Your task to perform on an android device: delete browsing data in the chrome app Image 0: 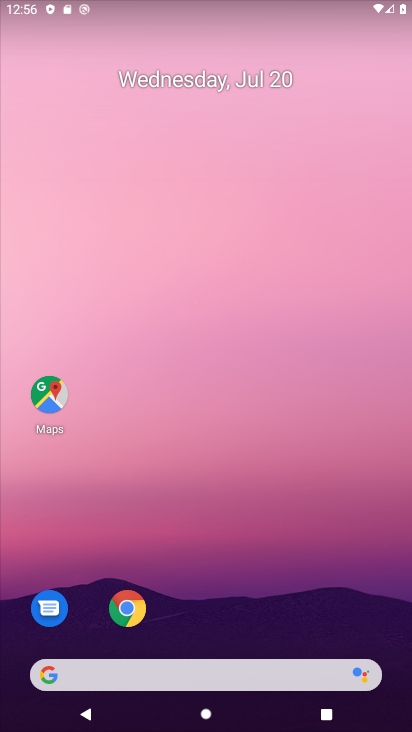
Step 0: drag from (299, 279) to (301, 29)
Your task to perform on an android device: delete browsing data in the chrome app Image 1: 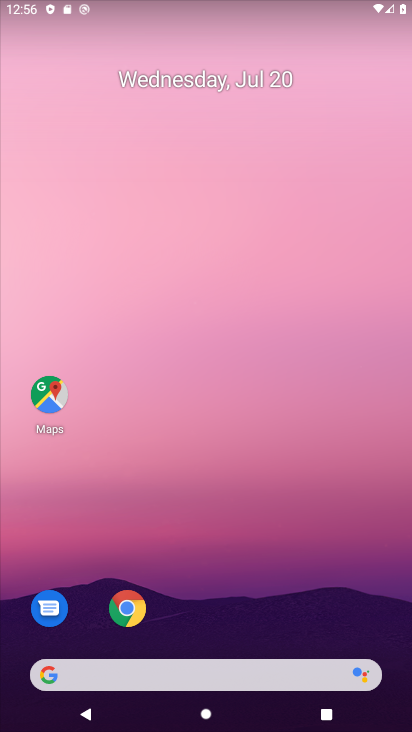
Step 1: drag from (178, 618) to (174, 0)
Your task to perform on an android device: delete browsing data in the chrome app Image 2: 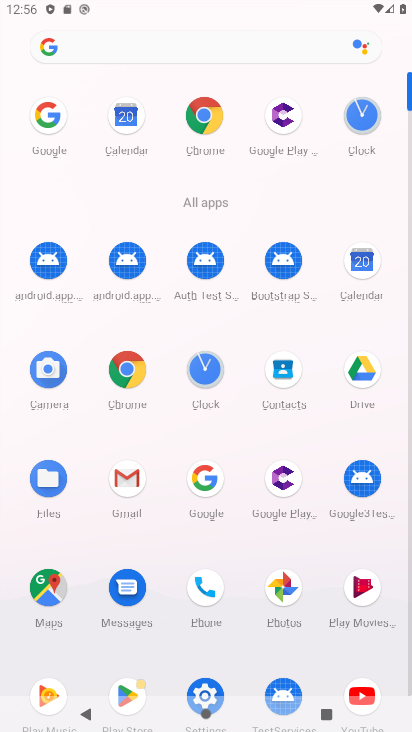
Step 2: click (198, 123)
Your task to perform on an android device: delete browsing data in the chrome app Image 3: 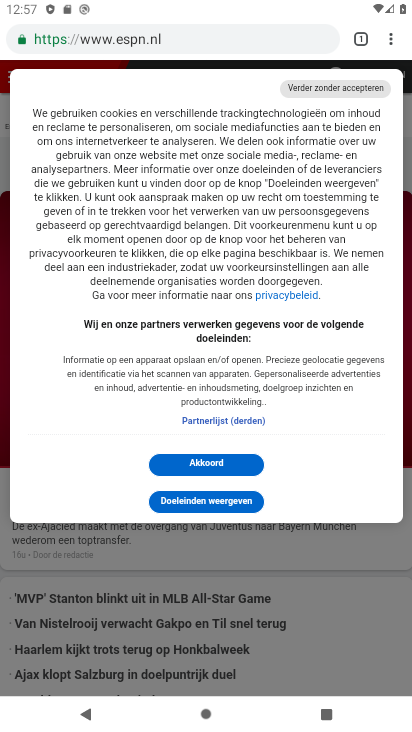
Step 3: drag from (397, 47) to (252, 221)
Your task to perform on an android device: delete browsing data in the chrome app Image 4: 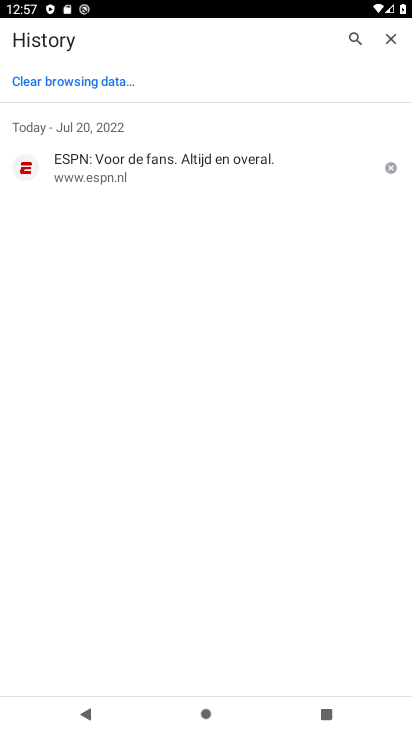
Step 4: click (114, 80)
Your task to perform on an android device: delete browsing data in the chrome app Image 5: 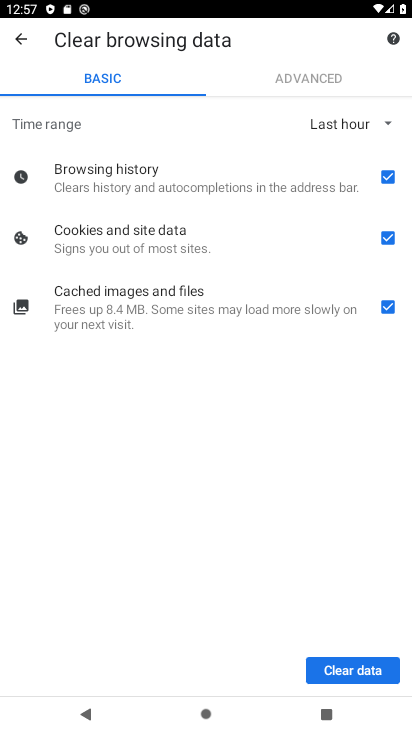
Step 5: click (383, 239)
Your task to perform on an android device: delete browsing data in the chrome app Image 6: 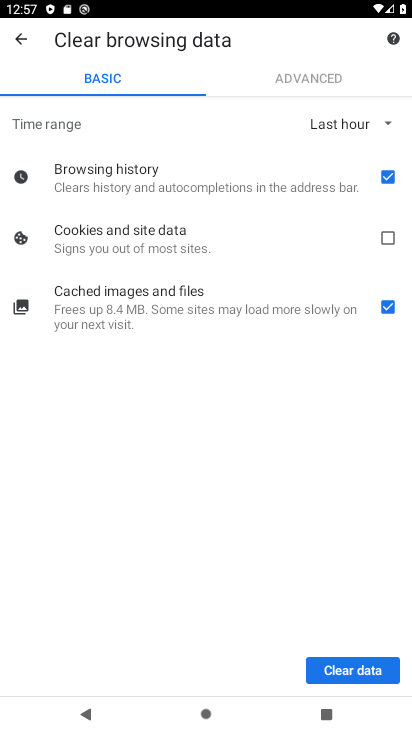
Step 6: click (385, 321)
Your task to perform on an android device: delete browsing data in the chrome app Image 7: 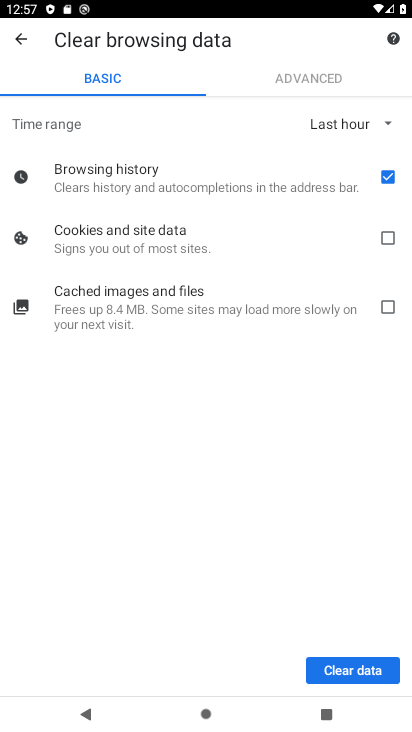
Step 7: click (338, 670)
Your task to perform on an android device: delete browsing data in the chrome app Image 8: 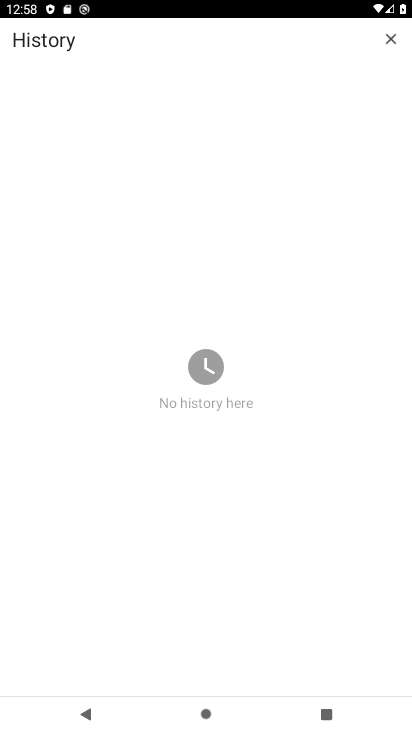
Step 8: task complete